Your task to perform on an android device: toggle javascript in the chrome app Image 0: 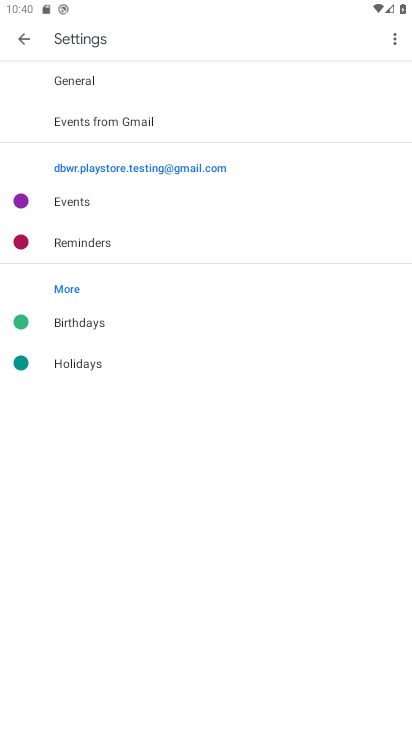
Step 0: press home button
Your task to perform on an android device: toggle javascript in the chrome app Image 1: 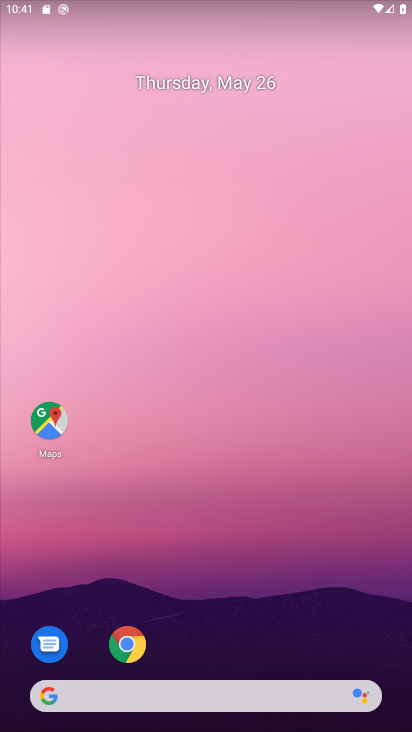
Step 1: drag from (357, 628) to (349, 264)
Your task to perform on an android device: toggle javascript in the chrome app Image 2: 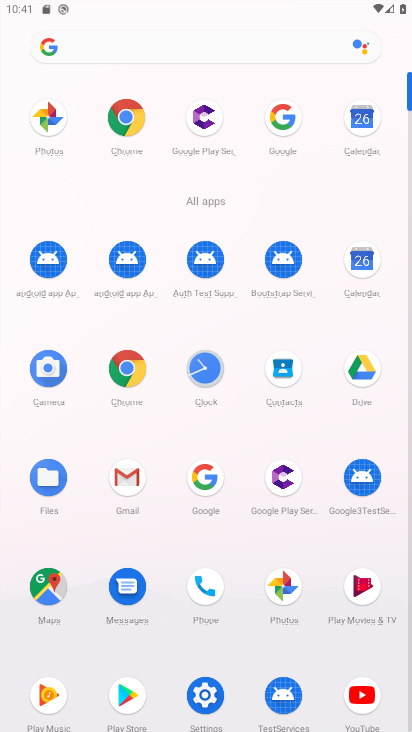
Step 2: click (135, 385)
Your task to perform on an android device: toggle javascript in the chrome app Image 3: 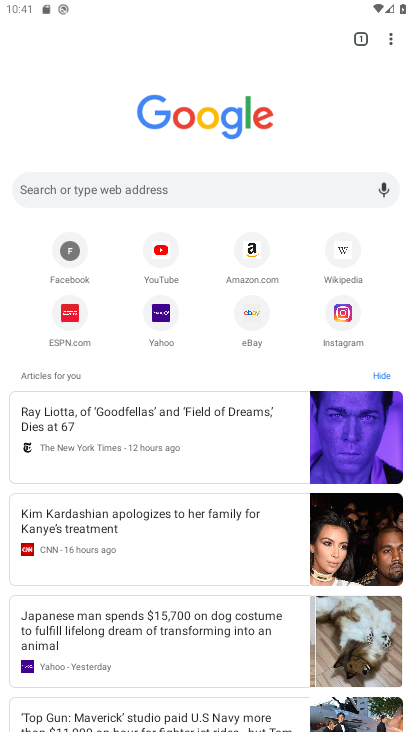
Step 3: click (386, 42)
Your task to perform on an android device: toggle javascript in the chrome app Image 4: 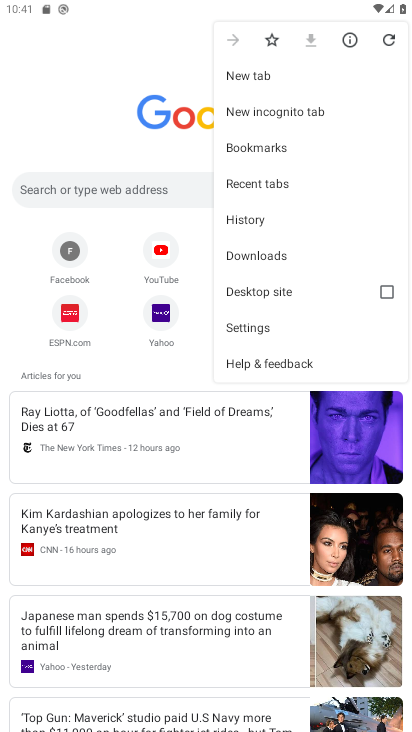
Step 4: click (276, 329)
Your task to perform on an android device: toggle javascript in the chrome app Image 5: 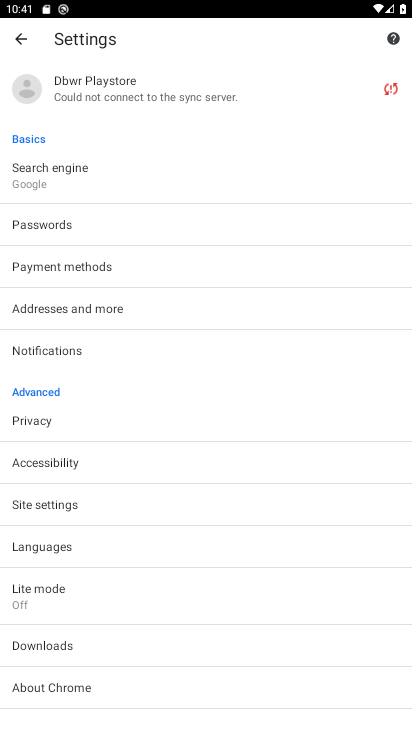
Step 5: drag from (296, 375) to (300, 258)
Your task to perform on an android device: toggle javascript in the chrome app Image 6: 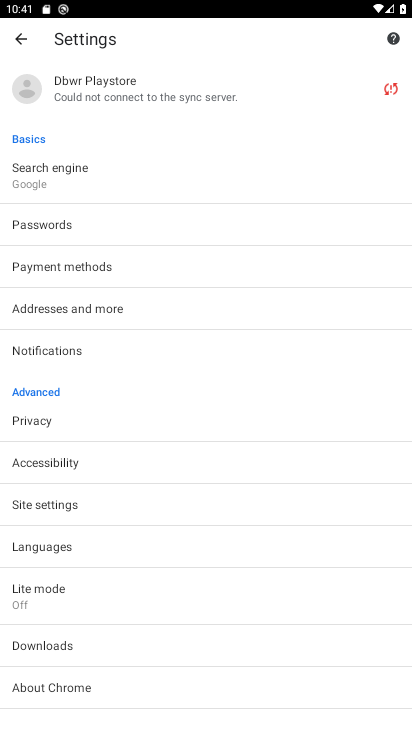
Step 6: click (288, 506)
Your task to perform on an android device: toggle javascript in the chrome app Image 7: 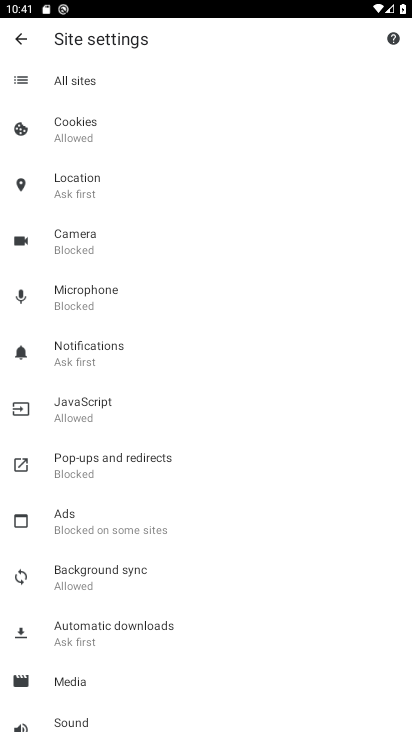
Step 7: click (214, 410)
Your task to perform on an android device: toggle javascript in the chrome app Image 8: 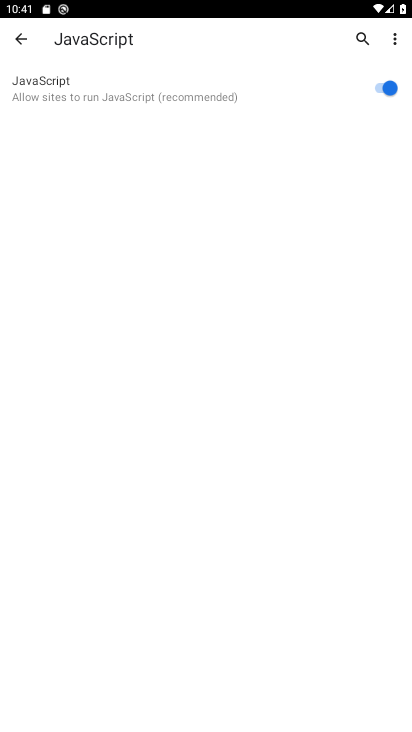
Step 8: click (384, 91)
Your task to perform on an android device: toggle javascript in the chrome app Image 9: 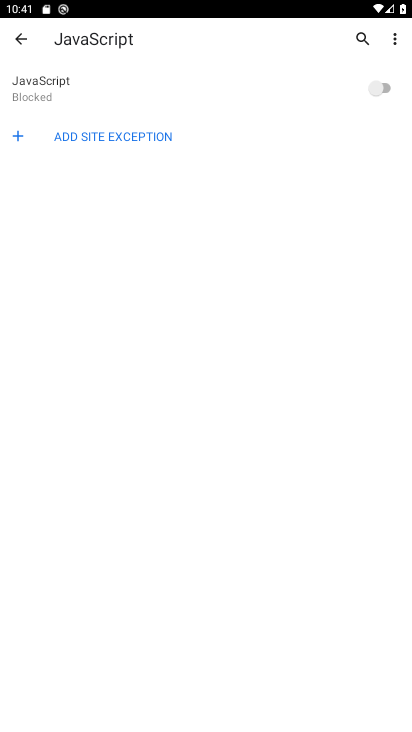
Step 9: task complete